Your task to perform on an android device: Search for "asus zenbook" on amazon, select the first entry, add it to the cart, then select checkout. Image 0: 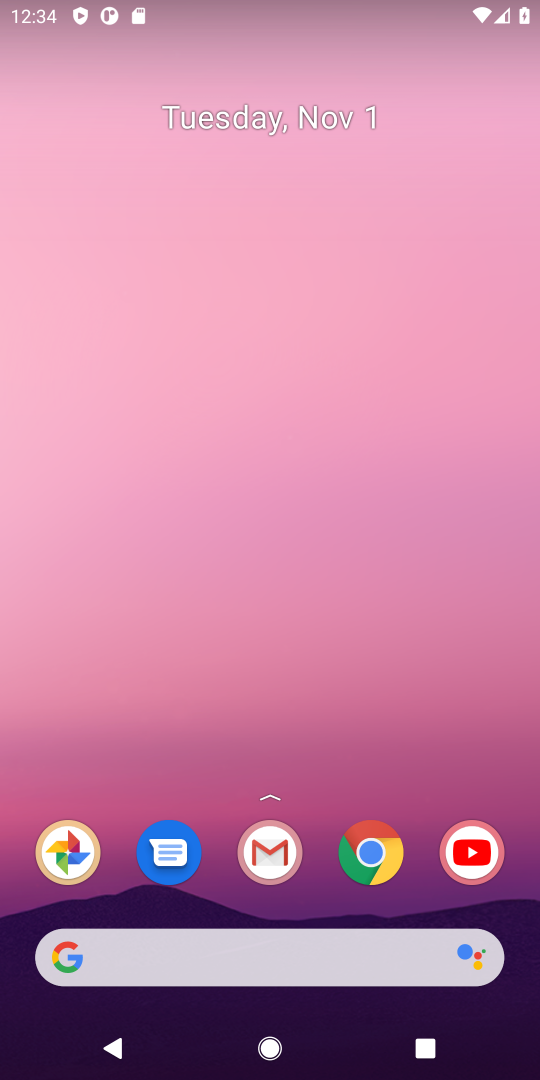
Step 0: click (362, 882)
Your task to perform on an android device: Search for "asus zenbook" on amazon, select the first entry, add it to the cart, then select checkout. Image 1: 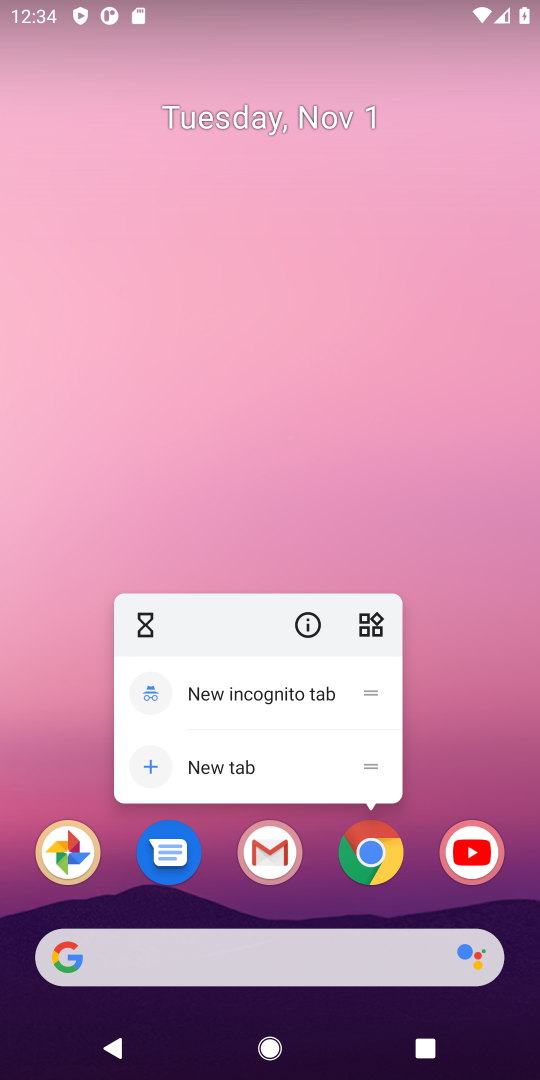
Step 1: click (377, 864)
Your task to perform on an android device: Search for "asus zenbook" on amazon, select the first entry, add it to the cart, then select checkout. Image 2: 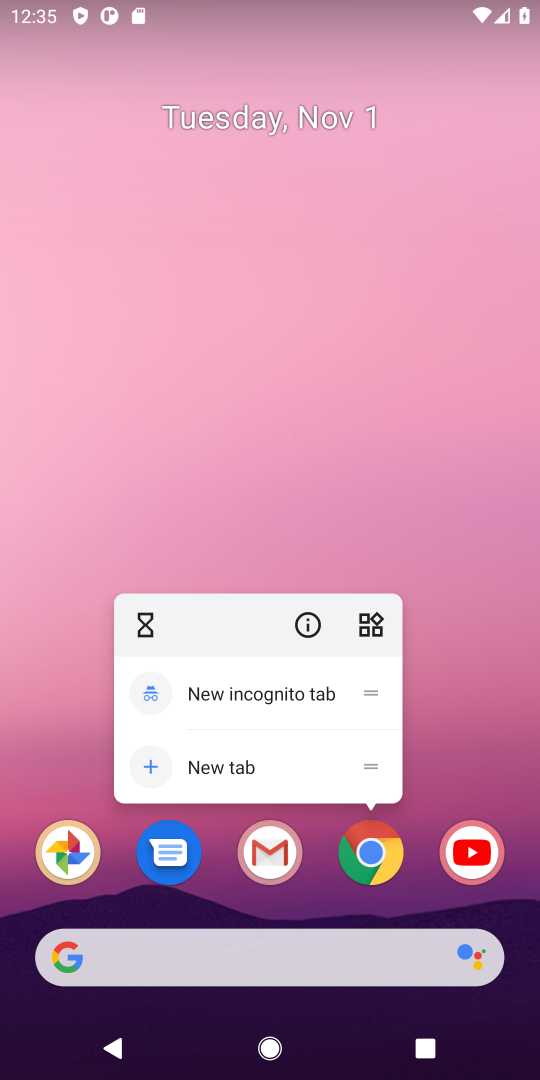
Step 2: click (361, 868)
Your task to perform on an android device: Search for "asus zenbook" on amazon, select the first entry, add it to the cart, then select checkout. Image 3: 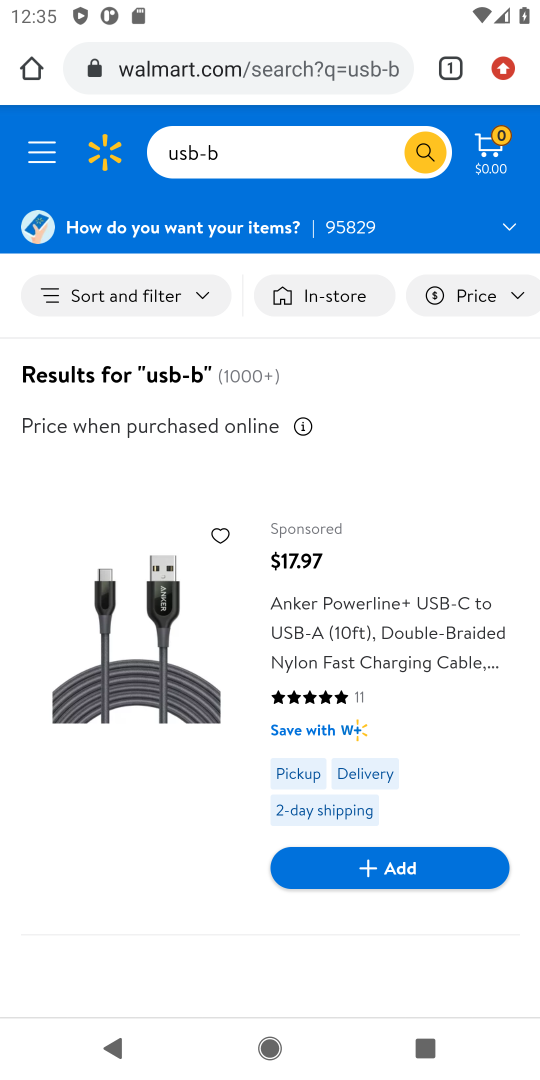
Step 3: click (300, 63)
Your task to perform on an android device: Search for "asus zenbook" on amazon, select the first entry, add it to the cart, then select checkout. Image 4: 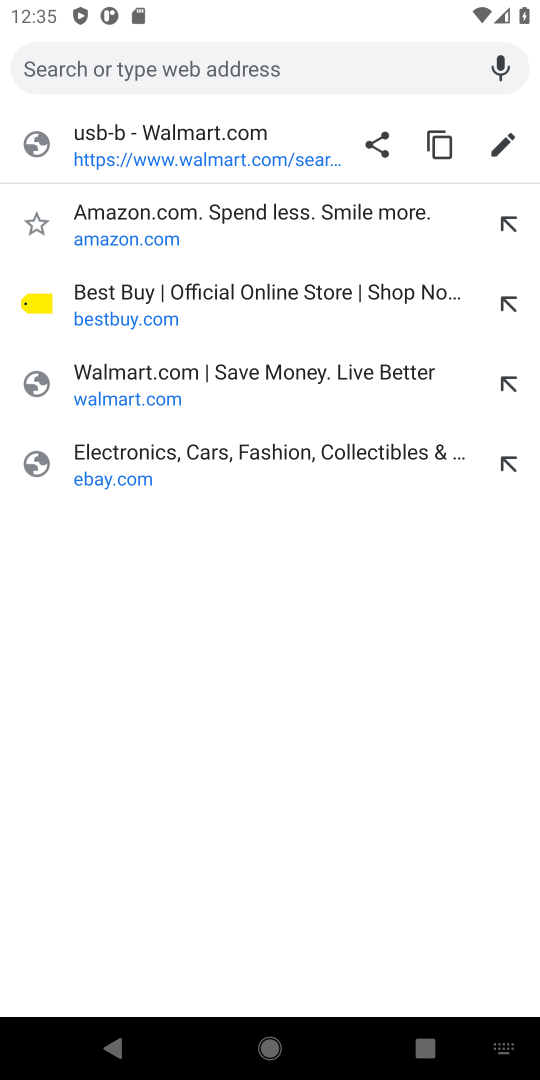
Step 4: type "amazon"
Your task to perform on an android device: Search for "asus zenbook" on amazon, select the first entry, add it to the cart, then select checkout. Image 5: 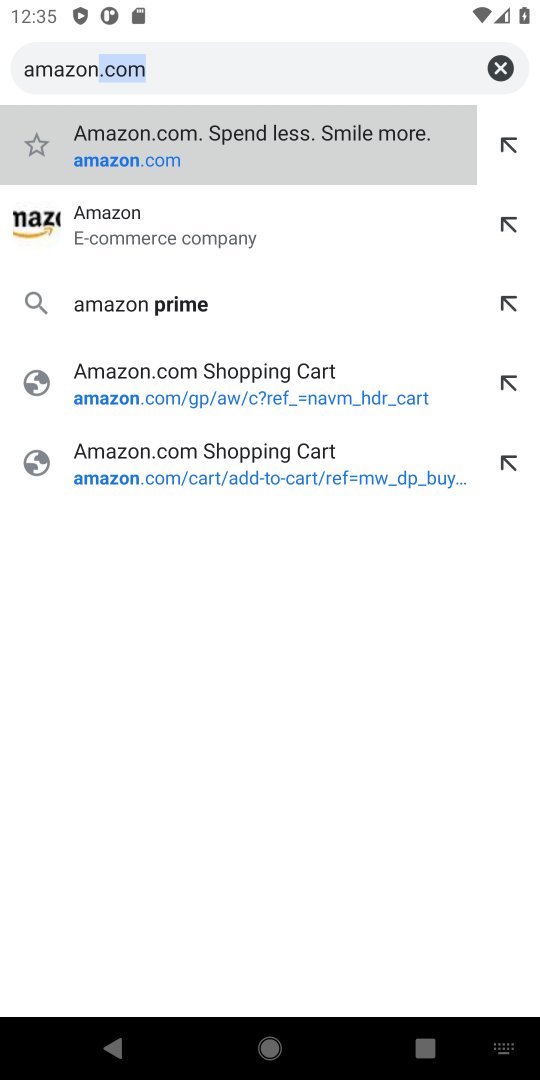
Step 5: type ""
Your task to perform on an android device: Search for "asus zenbook" on amazon, select the first entry, add it to the cart, then select checkout. Image 6: 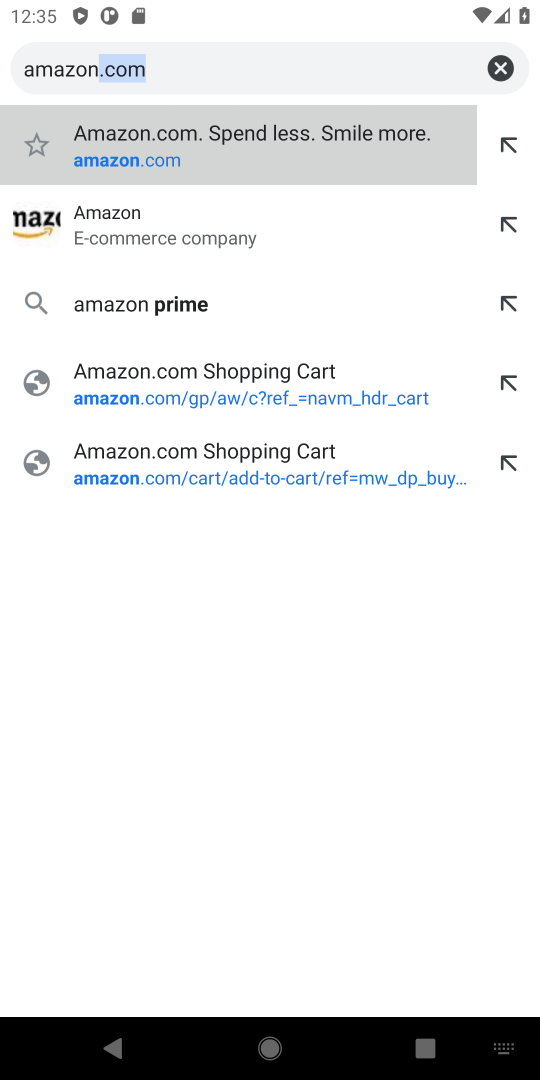
Step 6: press enter
Your task to perform on an android device: Search for "asus zenbook" on amazon, select the first entry, add it to the cart, then select checkout. Image 7: 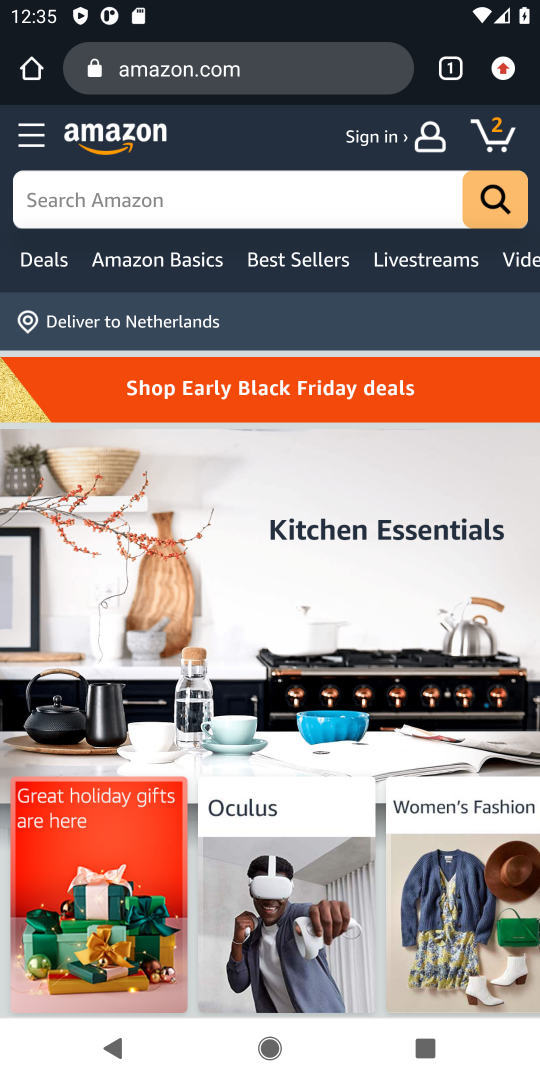
Step 7: click (208, 199)
Your task to perform on an android device: Search for "asus zenbook" on amazon, select the first entry, add it to the cart, then select checkout. Image 8: 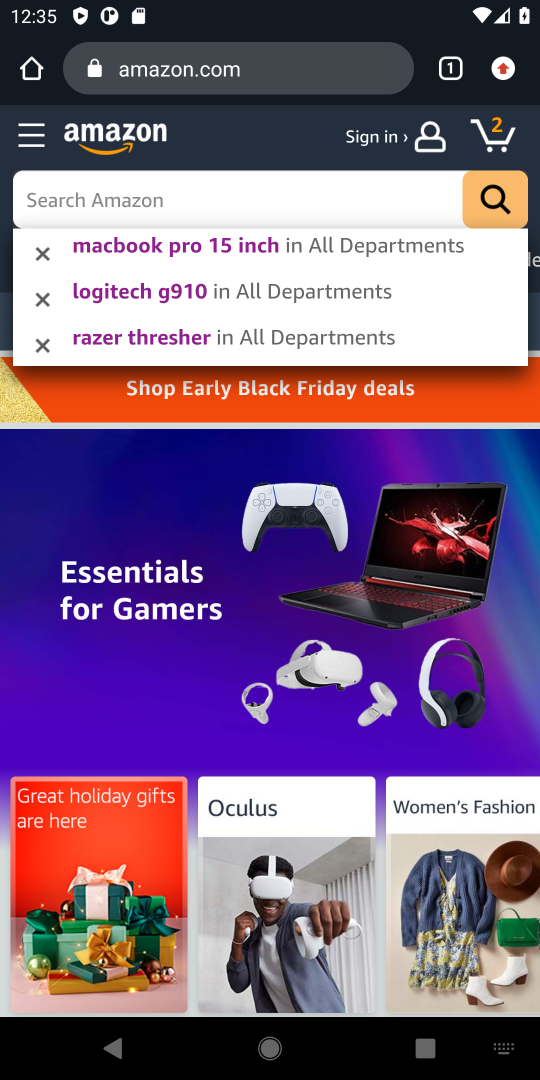
Step 8: type "asus zenbook"
Your task to perform on an android device: Search for "asus zenbook" on amazon, select the first entry, add it to the cart, then select checkout. Image 9: 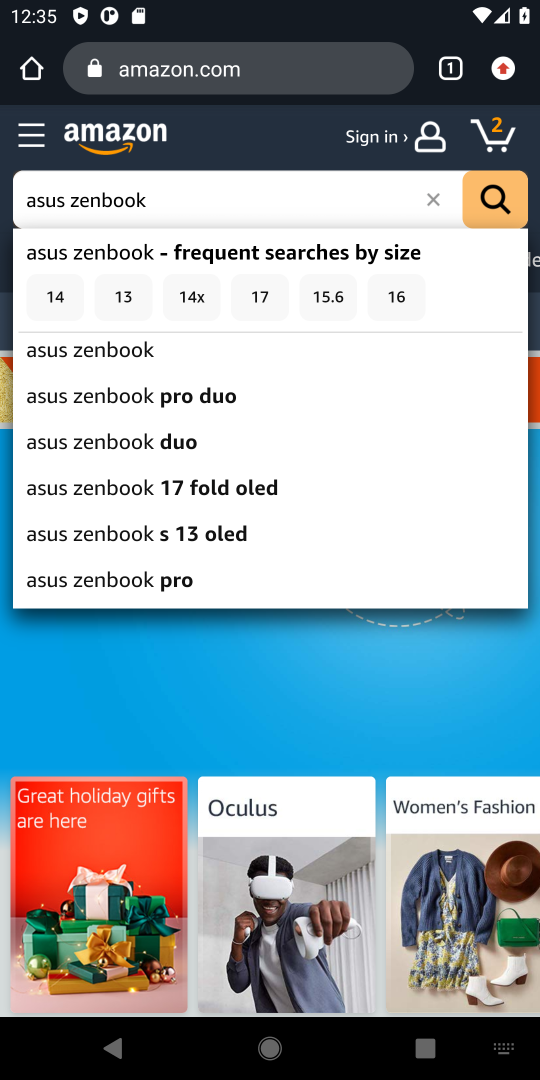
Step 9: press enter
Your task to perform on an android device: Search for "asus zenbook" on amazon, select the first entry, add it to the cart, then select checkout. Image 10: 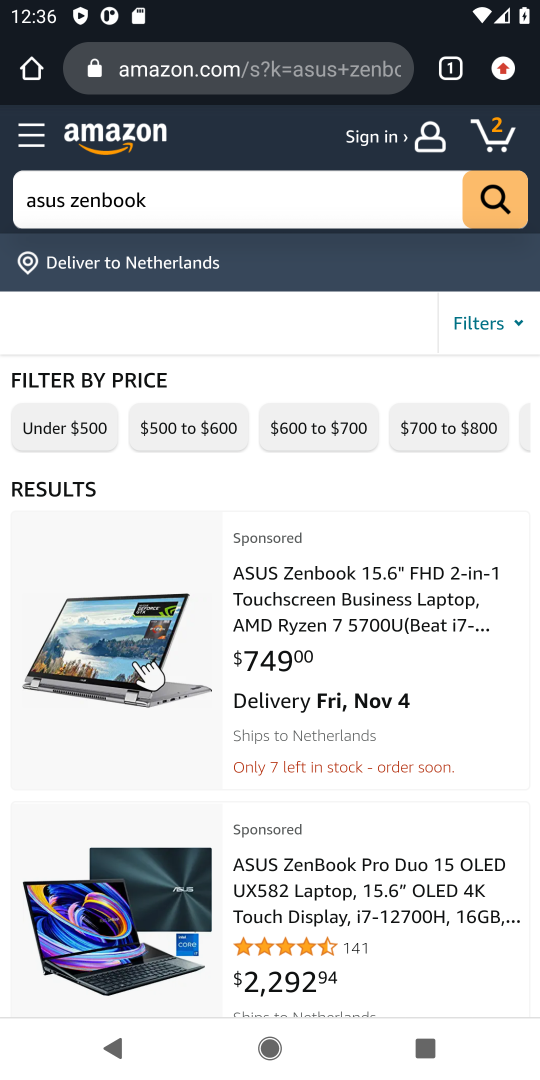
Step 10: click (364, 596)
Your task to perform on an android device: Search for "asus zenbook" on amazon, select the first entry, add it to the cart, then select checkout. Image 11: 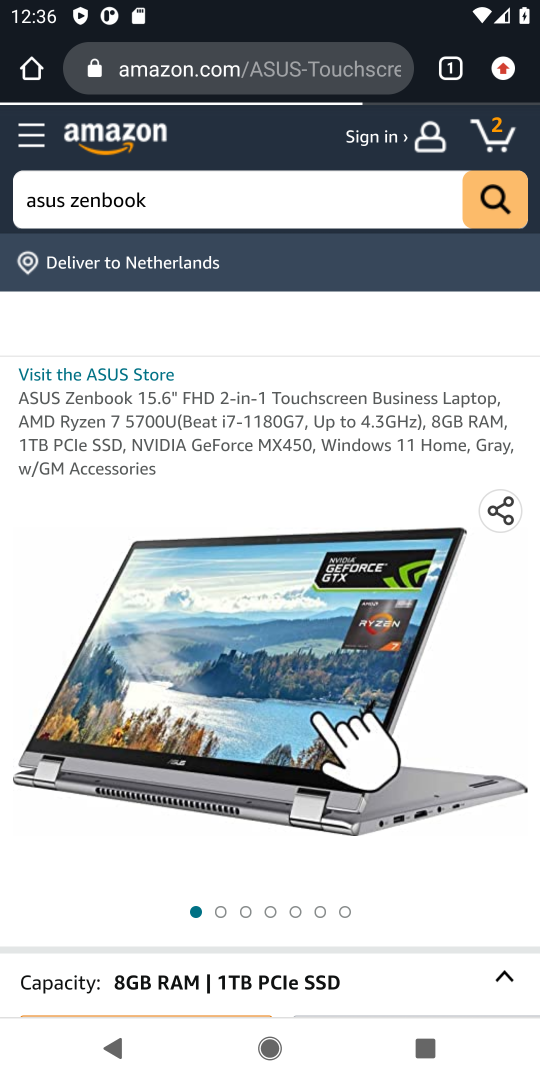
Step 11: drag from (304, 808) to (295, 270)
Your task to perform on an android device: Search for "asus zenbook" on amazon, select the first entry, add it to the cart, then select checkout. Image 12: 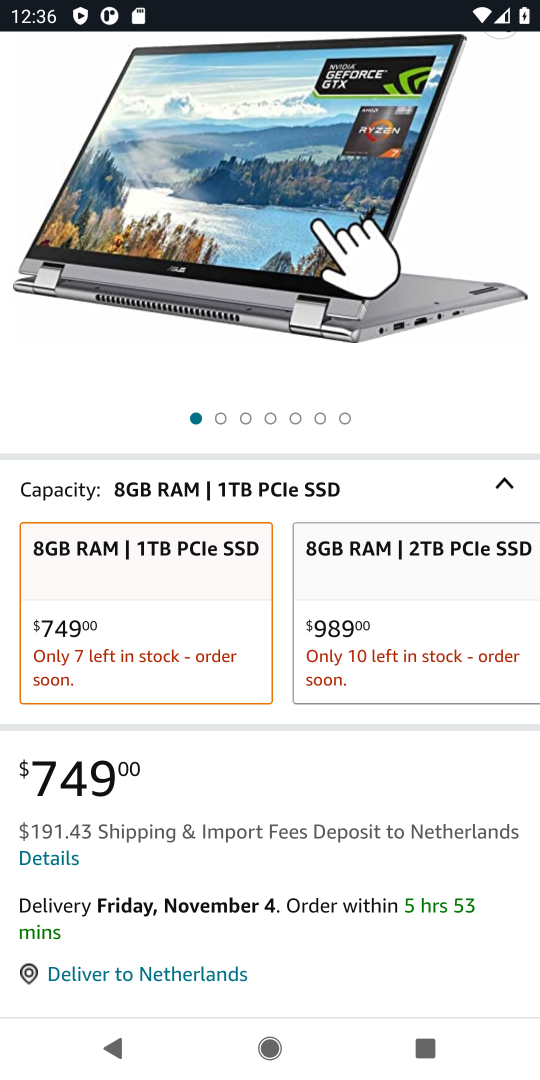
Step 12: drag from (331, 903) to (363, 453)
Your task to perform on an android device: Search for "asus zenbook" on amazon, select the first entry, add it to the cart, then select checkout. Image 13: 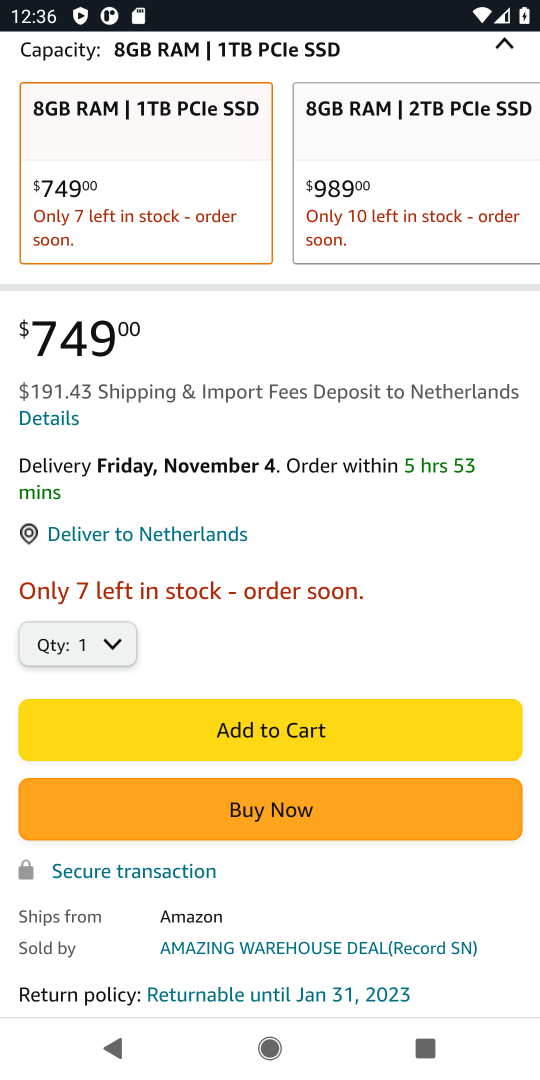
Step 13: click (292, 725)
Your task to perform on an android device: Search for "asus zenbook" on amazon, select the first entry, add it to the cart, then select checkout. Image 14: 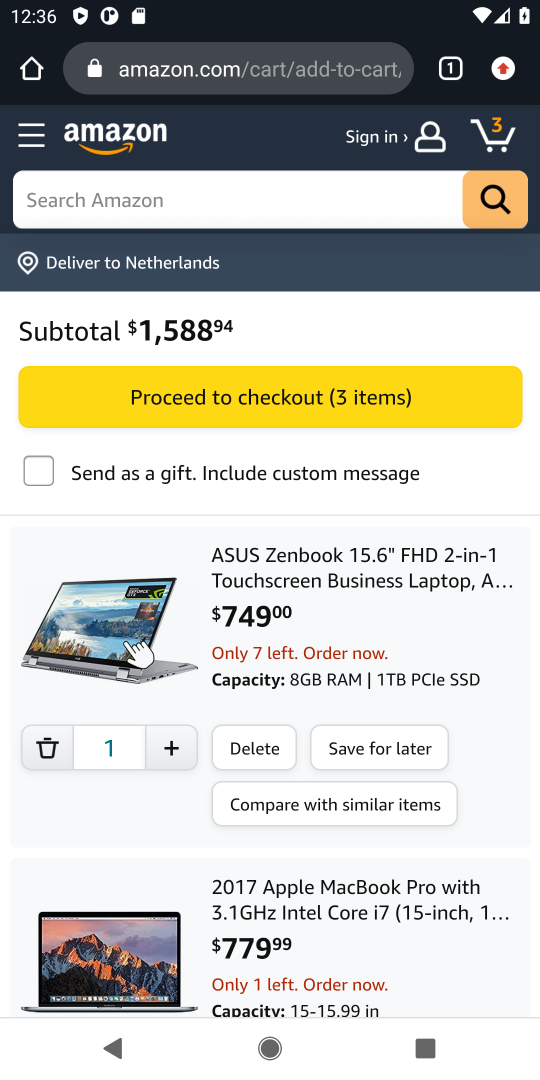
Step 14: click (398, 407)
Your task to perform on an android device: Search for "asus zenbook" on amazon, select the first entry, add it to the cart, then select checkout. Image 15: 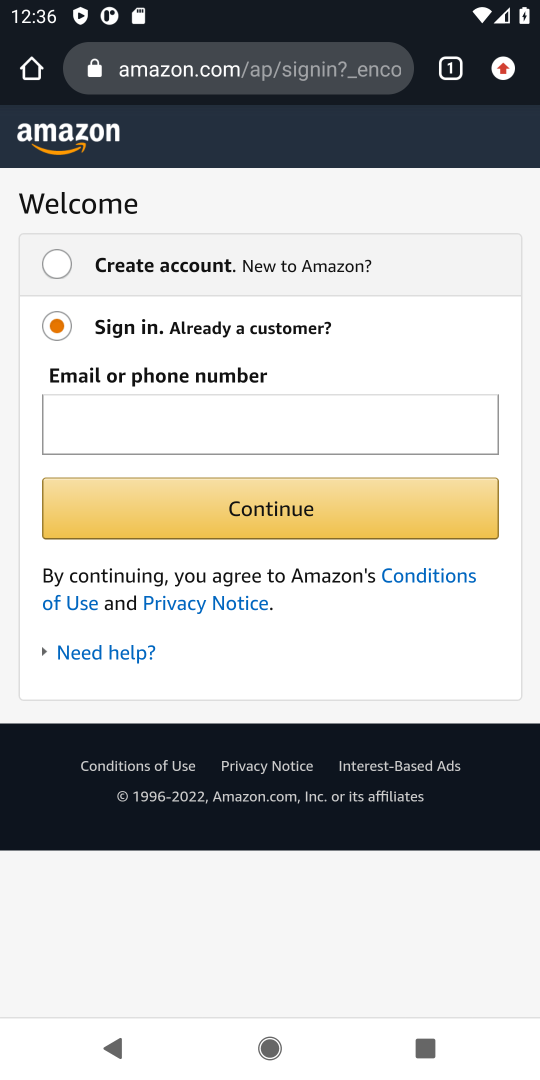
Step 15: task complete